Your task to perform on an android device: toggle data saver in the chrome app Image 0: 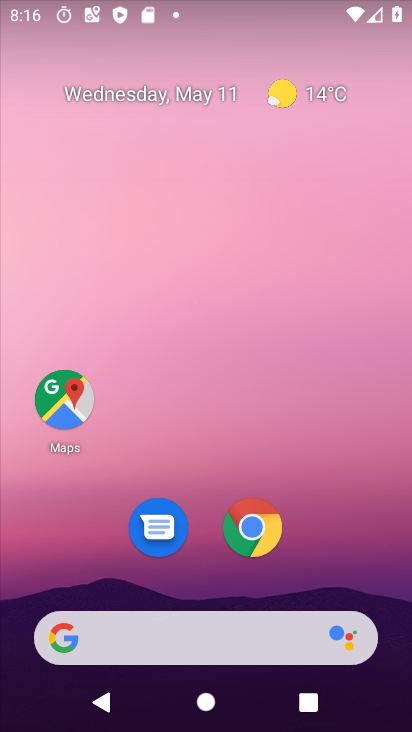
Step 0: drag from (310, 610) to (325, 141)
Your task to perform on an android device: toggle data saver in the chrome app Image 1: 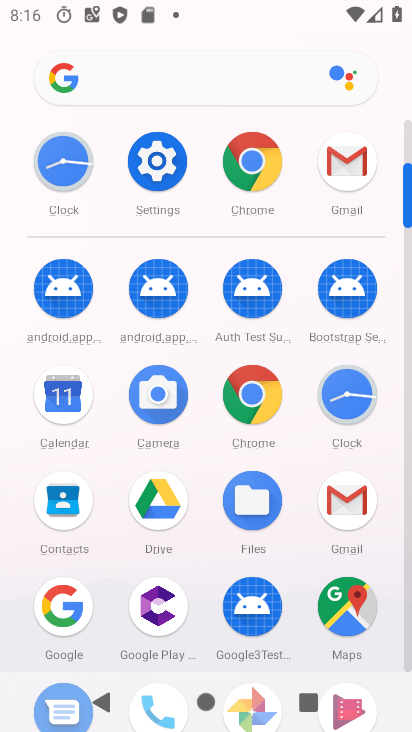
Step 1: click (252, 162)
Your task to perform on an android device: toggle data saver in the chrome app Image 2: 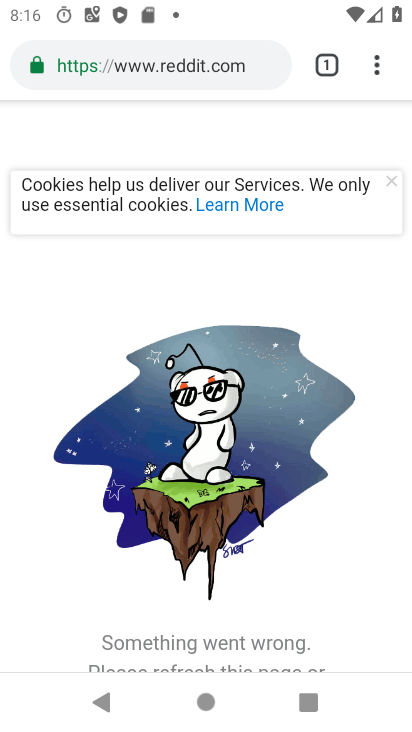
Step 2: click (391, 70)
Your task to perform on an android device: toggle data saver in the chrome app Image 3: 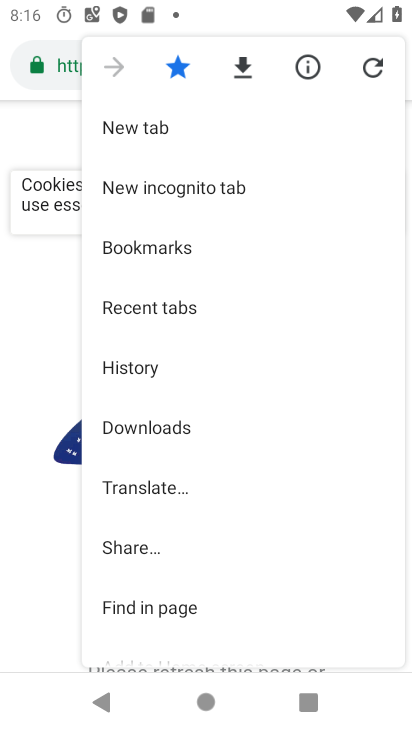
Step 3: drag from (186, 558) to (218, 161)
Your task to perform on an android device: toggle data saver in the chrome app Image 4: 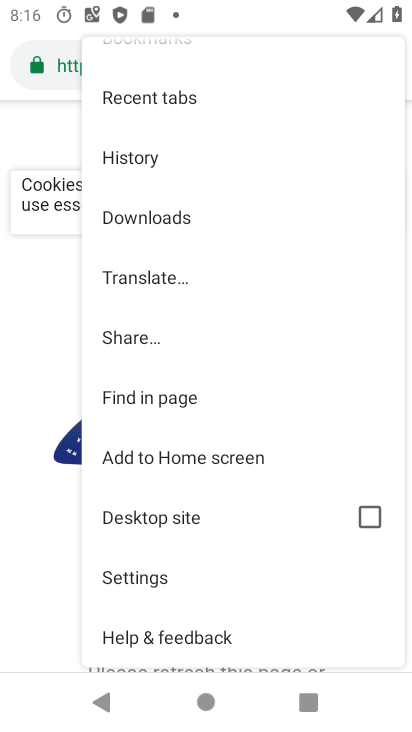
Step 4: click (172, 579)
Your task to perform on an android device: toggle data saver in the chrome app Image 5: 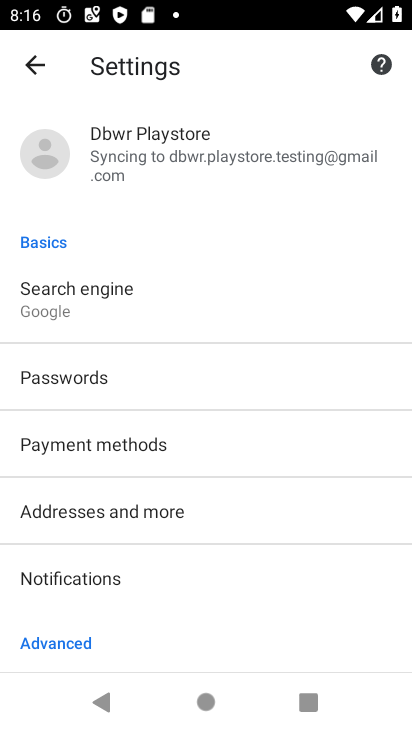
Step 5: drag from (169, 574) to (197, 294)
Your task to perform on an android device: toggle data saver in the chrome app Image 6: 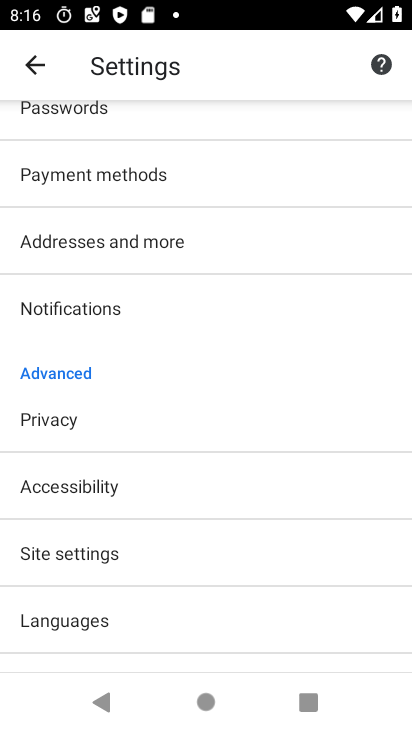
Step 6: drag from (139, 583) to (155, 352)
Your task to perform on an android device: toggle data saver in the chrome app Image 7: 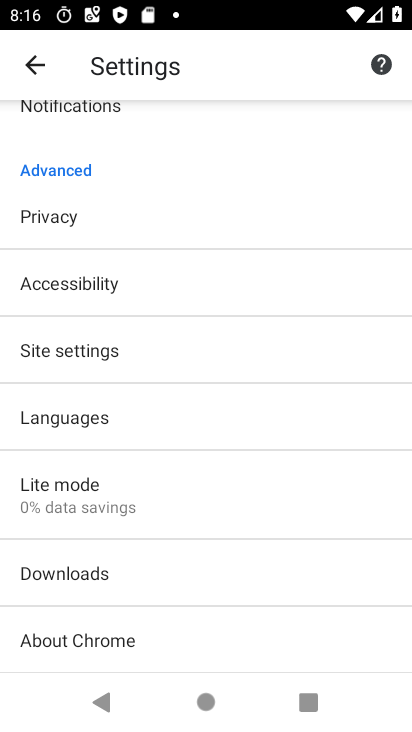
Step 7: click (149, 489)
Your task to perform on an android device: toggle data saver in the chrome app Image 8: 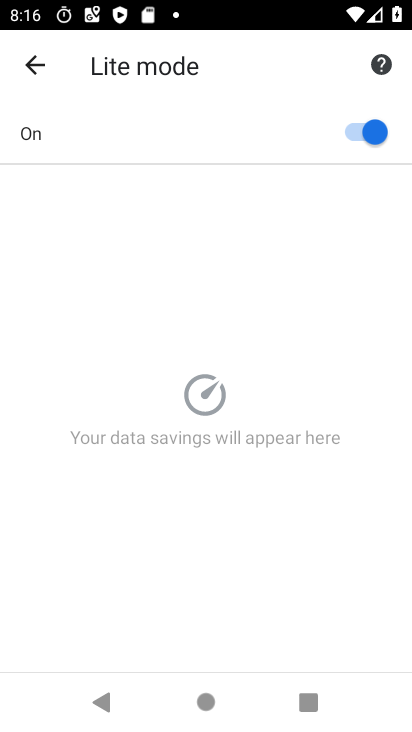
Step 8: click (347, 134)
Your task to perform on an android device: toggle data saver in the chrome app Image 9: 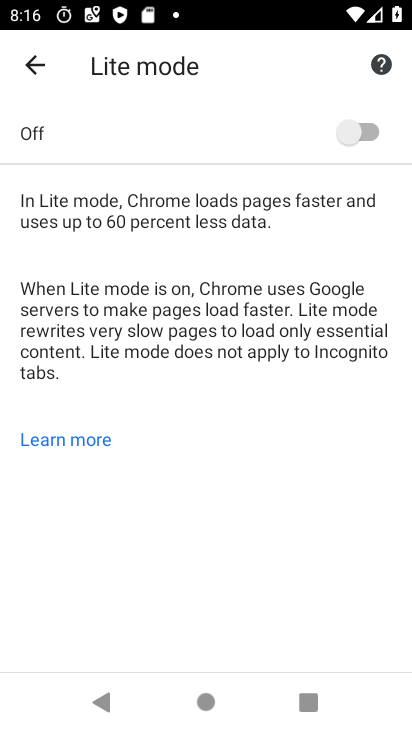
Step 9: task complete